Your task to perform on an android device: Search for seafood restaurants on Google Maps Image 0: 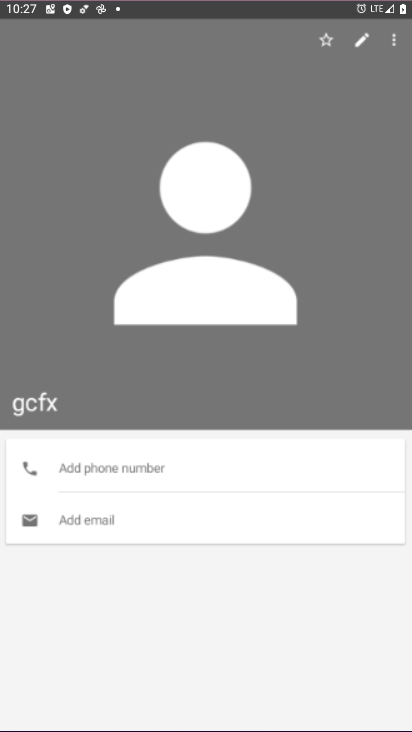
Step 0: press home button
Your task to perform on an android device: Search for seafood restaurants on Google Maps Image 1: 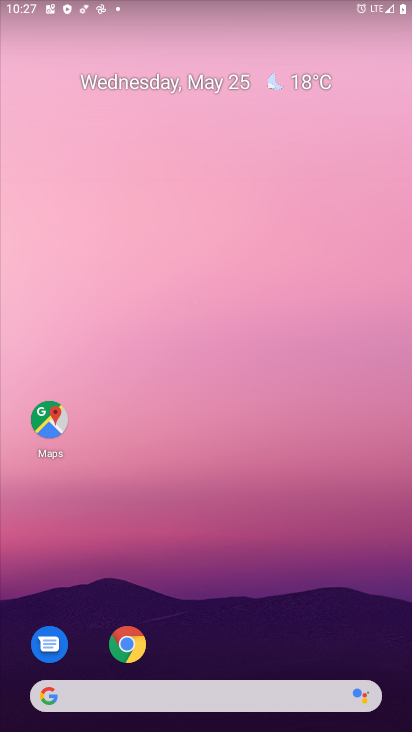
Step 1: click (50, 415)
Your task to perform on an android device: Search for seafood restaurants on Google Maps Image 2: 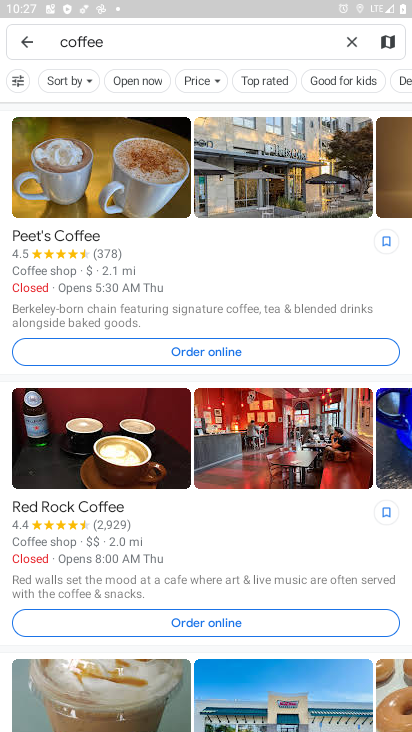
Step 2: click (30, 42)
Your task to perform on an android device: Search for seafood restaurants on Google Maps Image 3: 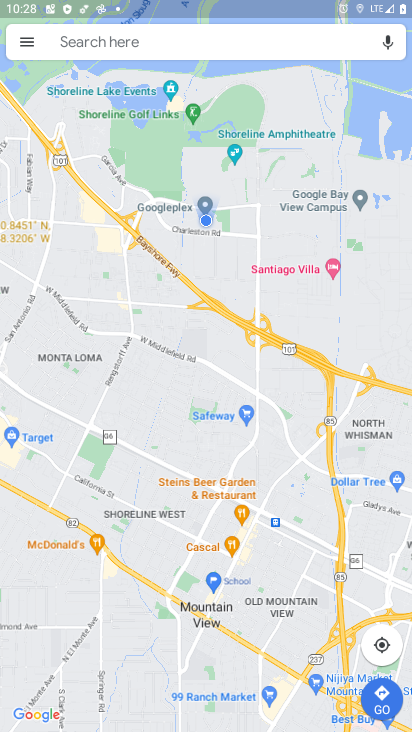
Step 3: click (118, 31)
Your task to perform on an android device: Search for seafood restaurants on Google Maps Image 4: 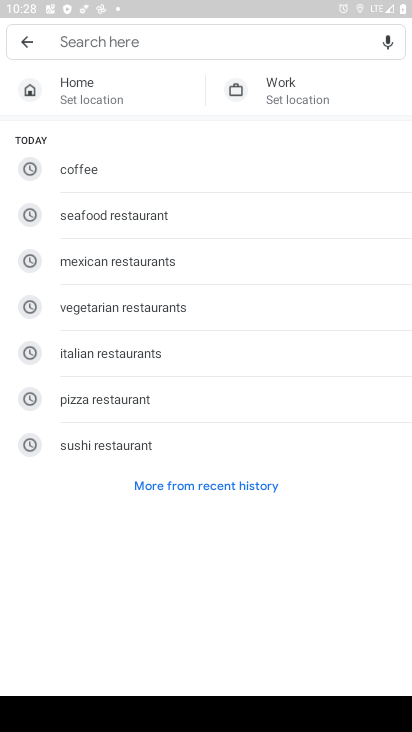
Step 4: click (103, 213)
Your task to perform on an android device: Search for seafood restaurants on Google Maps Image 5: 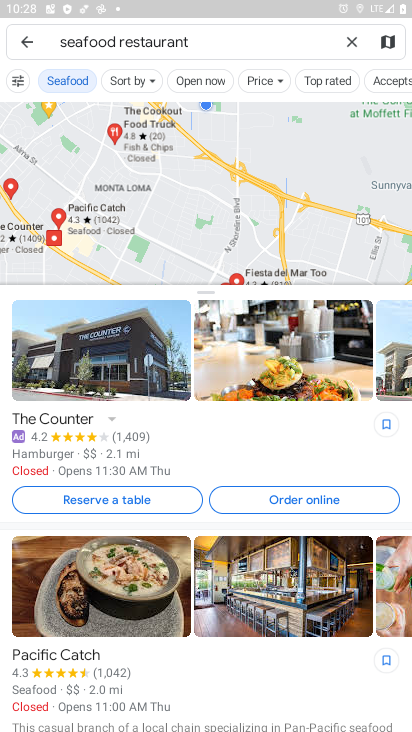
Step 5: task complete